Your task to perform on an android device: toggle notification dots Image 0: 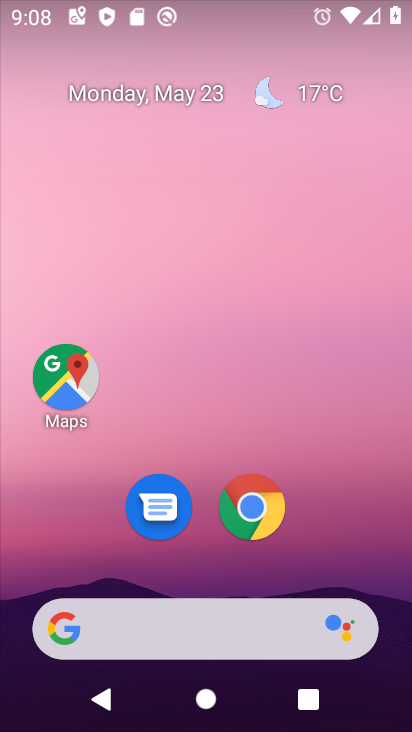
Step 0: drag from (358, 590) to (198, 1)
Your task to perform on an android device: toggle notification dots Image 1: 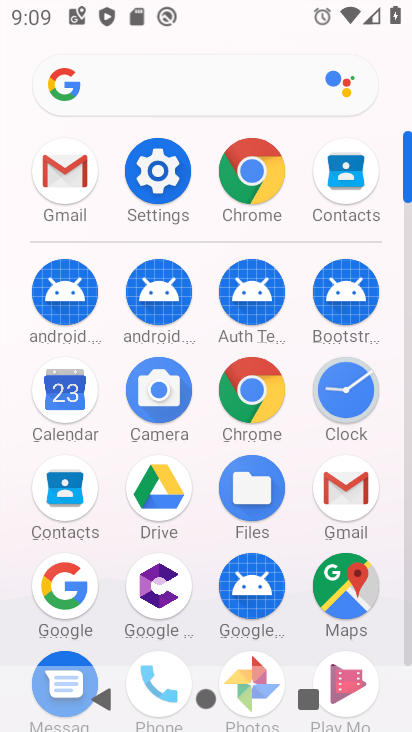
Step 1: click (143, 164)
Your task to perform on an android device: toggle notification dots Image 2: 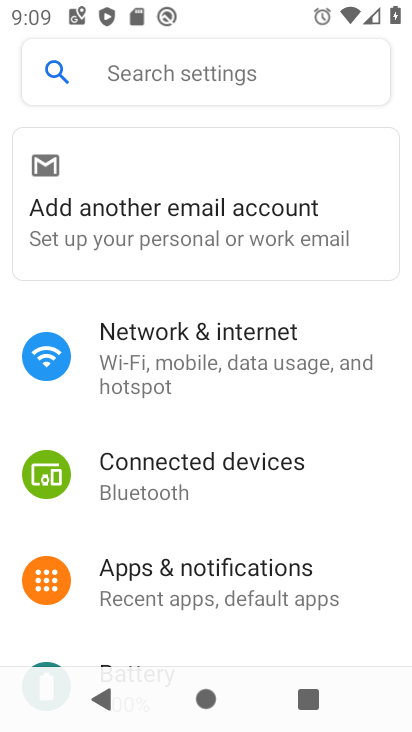
Step 2: click (197, 584)
Your task to perform on an android device: toggle notification dots Image 3: 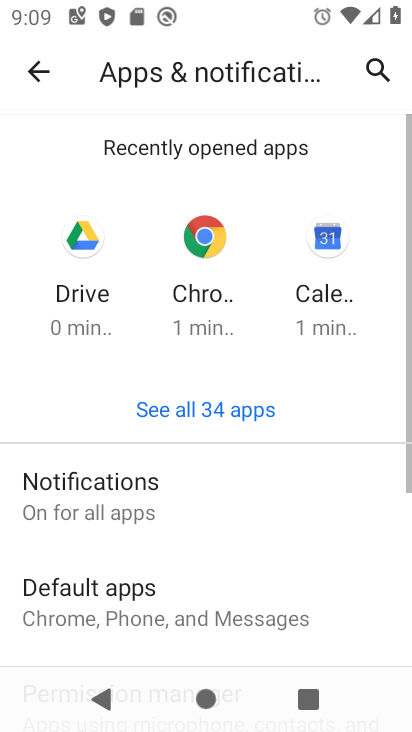
Step 3: click (93, 494)
Your task to perform on an android device: toggle notification dots Image 4: 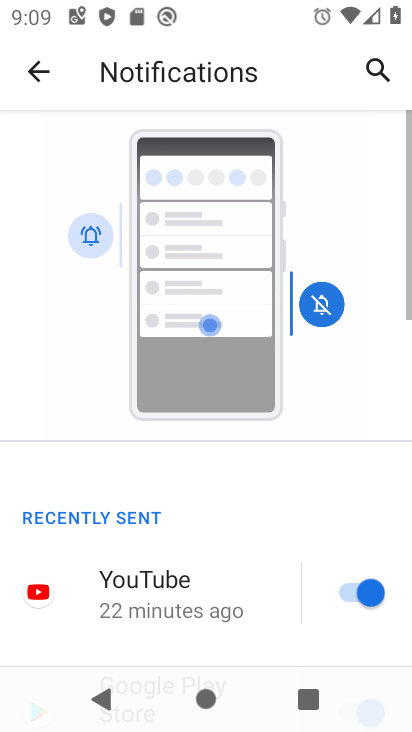
Step 4: drag from (209, 577) to (215, 26)
Your task to perform on an android device: toggle notification dots Image 5: 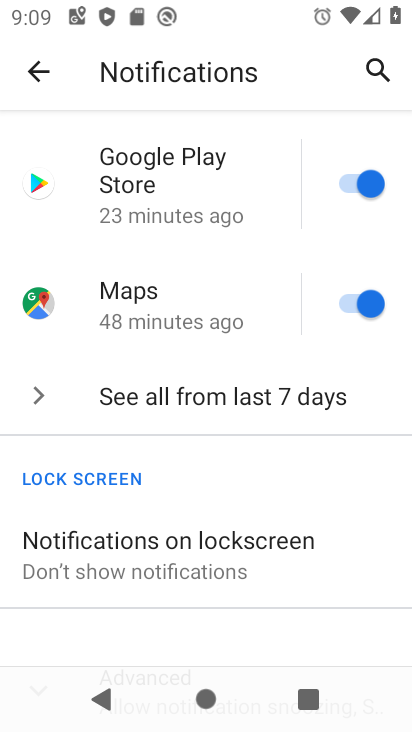
Step 5: drag from (187, 528) to (187, 139)
Your task to perform on an android device: toggle notification dots Image 6: 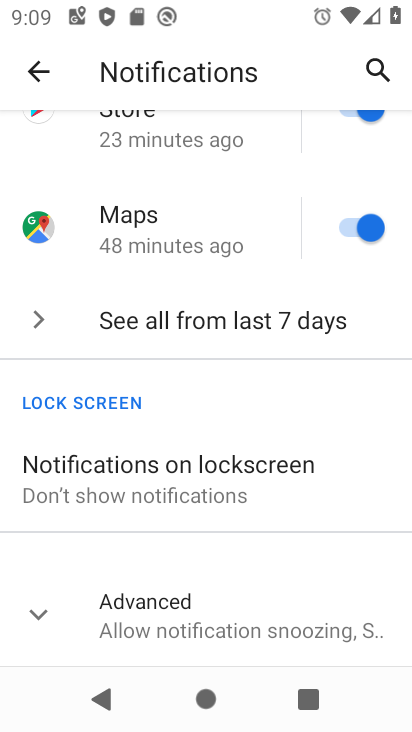
Step 6: click (37, 623)
Your task to perform on an android device: toggle notification dots Image 7: 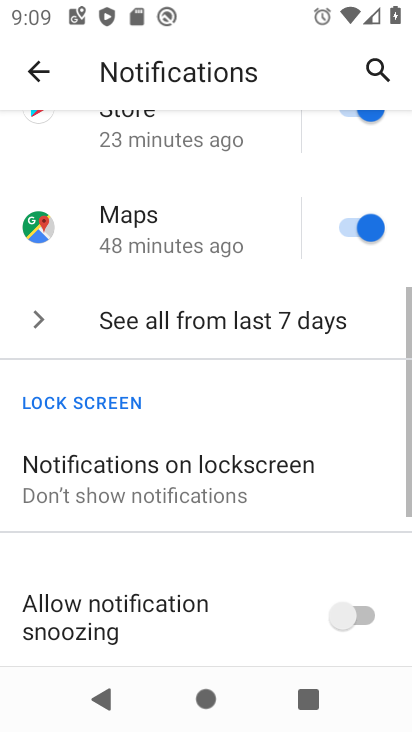
Step 7: drag from (177, 632) to (162, 93)
Your task to perform on an android device: toggle notification dots Image 8: 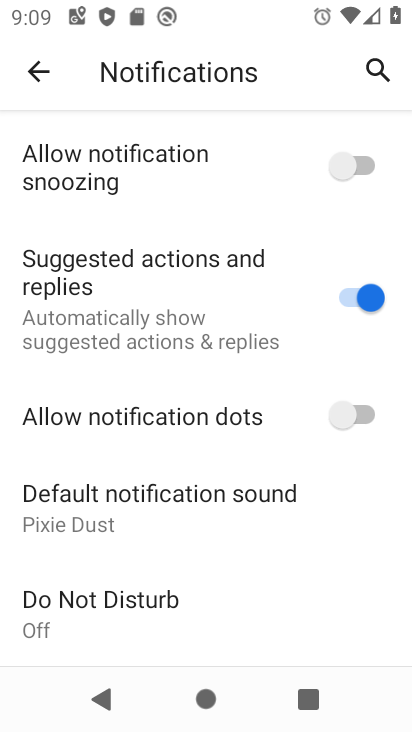
Step 8: click (346, 416)
Your task to perform on an android device: toggle notification dots Image 9: 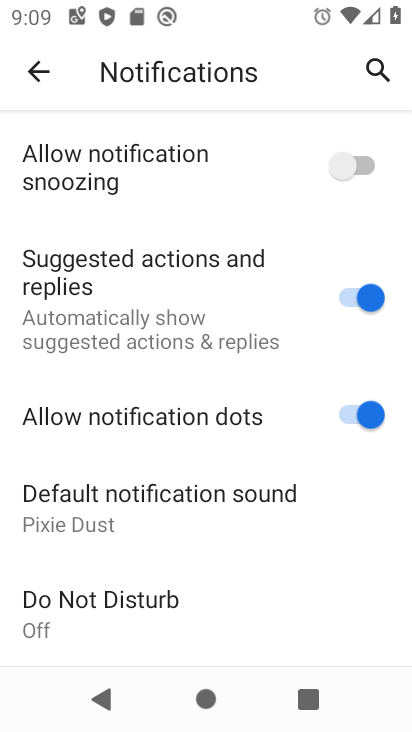
Step 9: task complete